Your task to perform on an android device: Search for pizza restaurants on Maps Image 0: 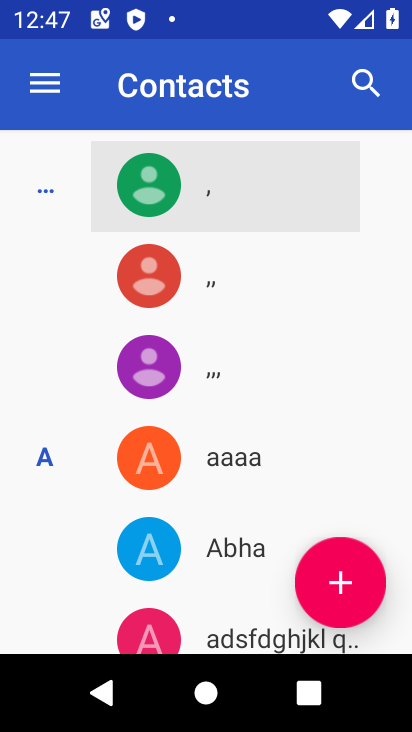
Step 0: press home button
Your task to perform on an android device: Search for pizza restaurants on Maps Image 1: 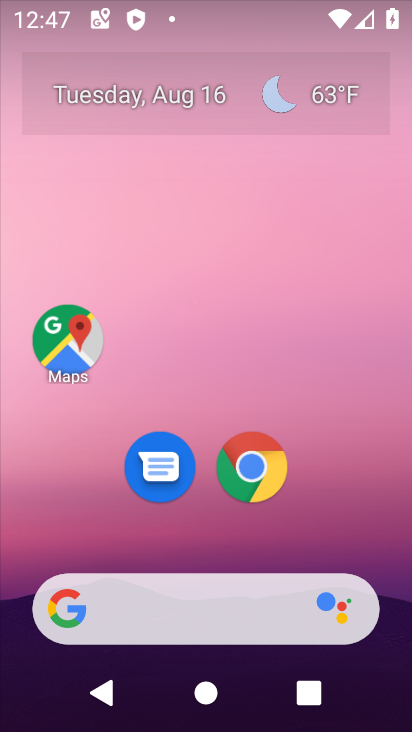
Step 1: drag from (372, 516) to (390, 137)
Your task to perform on an android device: Search for pizza restaurants on Maps Image 2: 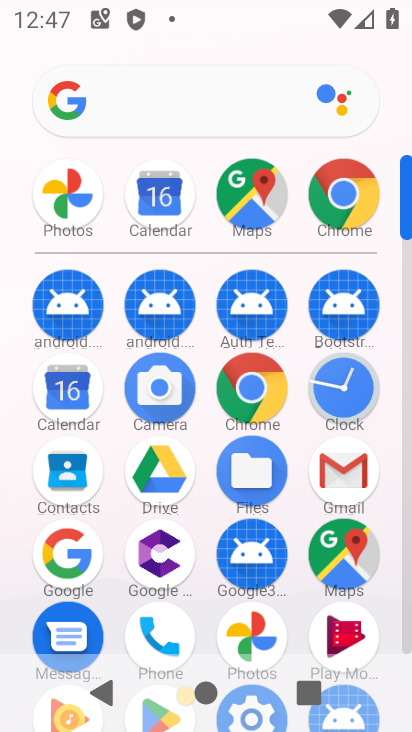
Step 2: click (338, 560)
Your task to perform on an android device: Search for pizza restaurants on Maps Image 3: 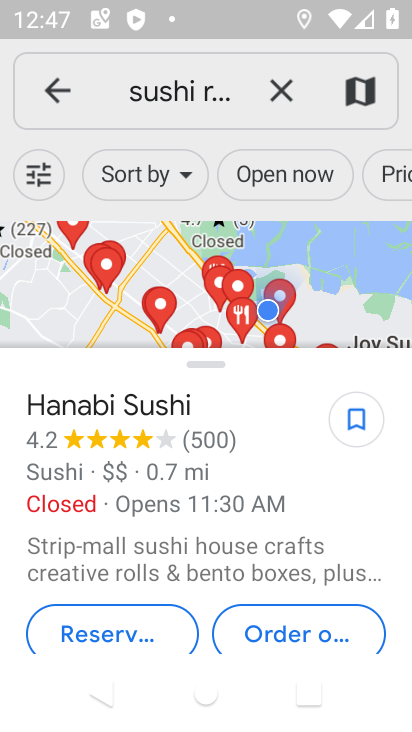
Step 3: press back button
Your task to perform on an android device: Search for pizza restaurants on Maps Image 4: 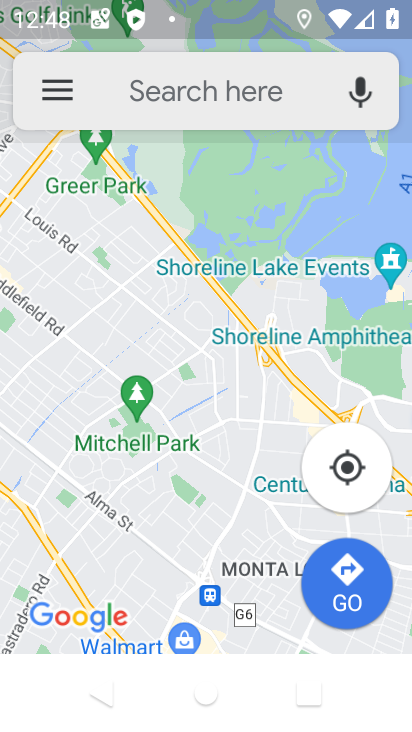
Step 4: click (267, 97)
Your task to perform on an android device: Search for pizza restaurants on Maps Image 5: 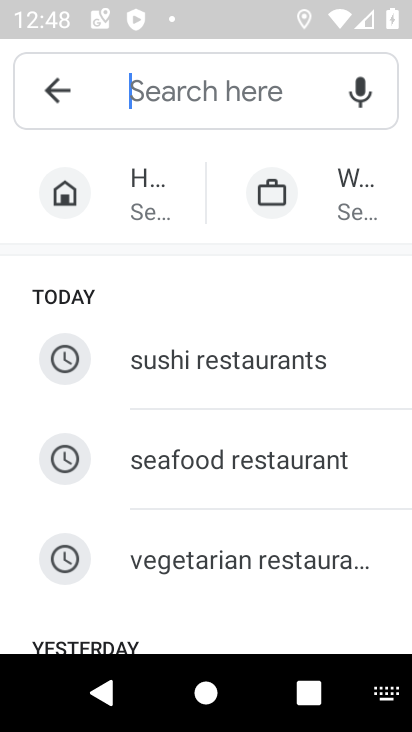
Step 5: press enter
Your task to perform on an android device: Search for pizza restaurants on Maps Image 6: 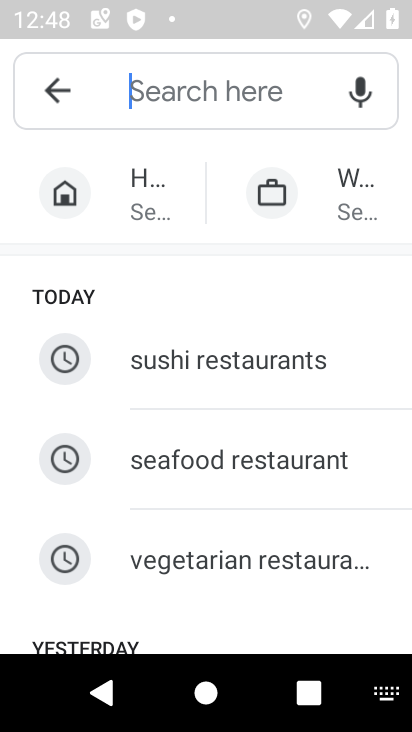
Step 6: type "pizza restaurants"
Your task to perform on an android device: Search for pizza restaurants on Maps Image 7: 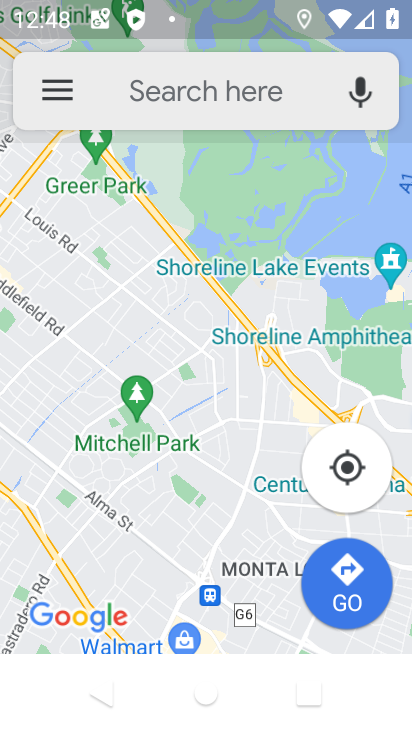
Step 7: click (201, 98)
Your task to perform on an android device: Search for pizza restaurants on Maps Image 8: 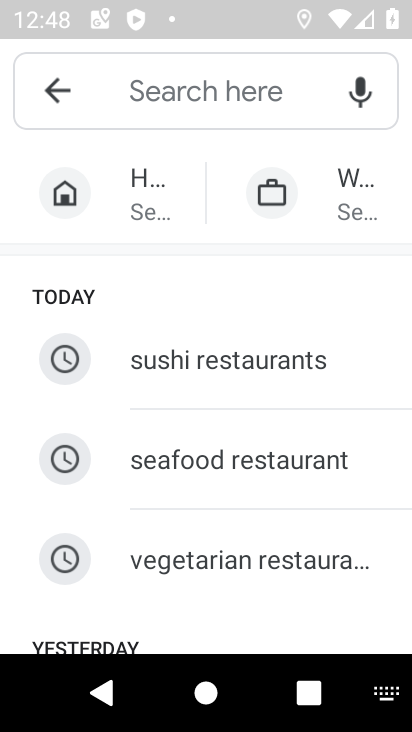
Step 8: type "pizza restaurants"
Your task to perform on an android device: Search for pizza restaurants on Maps Image 9: 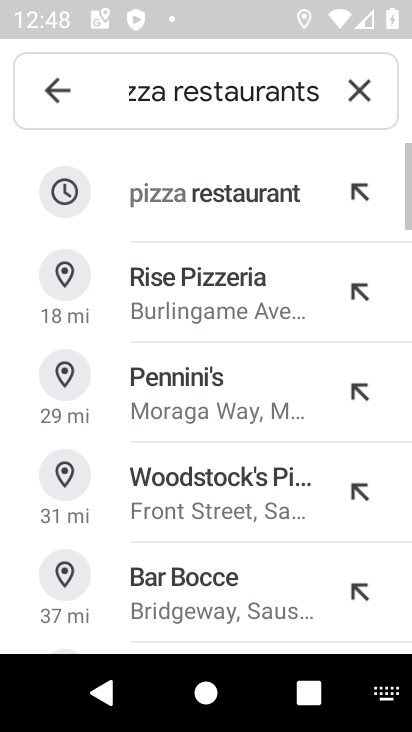
Step 9: click (319, 199)
Your task to perform on an android device: Search for pizza restaurants on Maps Image 10: 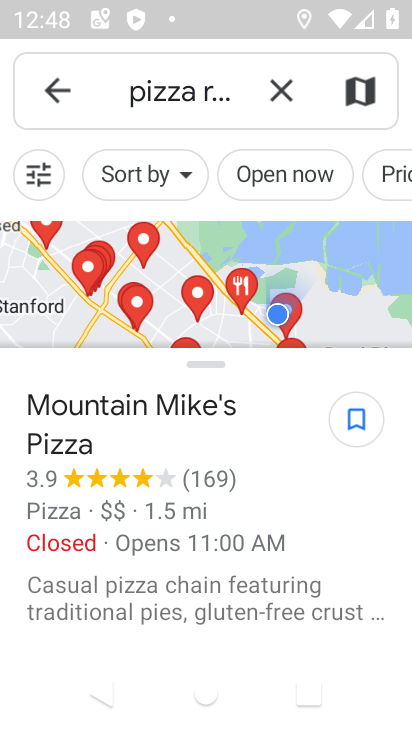
Step 10: task complete